Your task to perform on an android device: Open wifi settings Image 0: 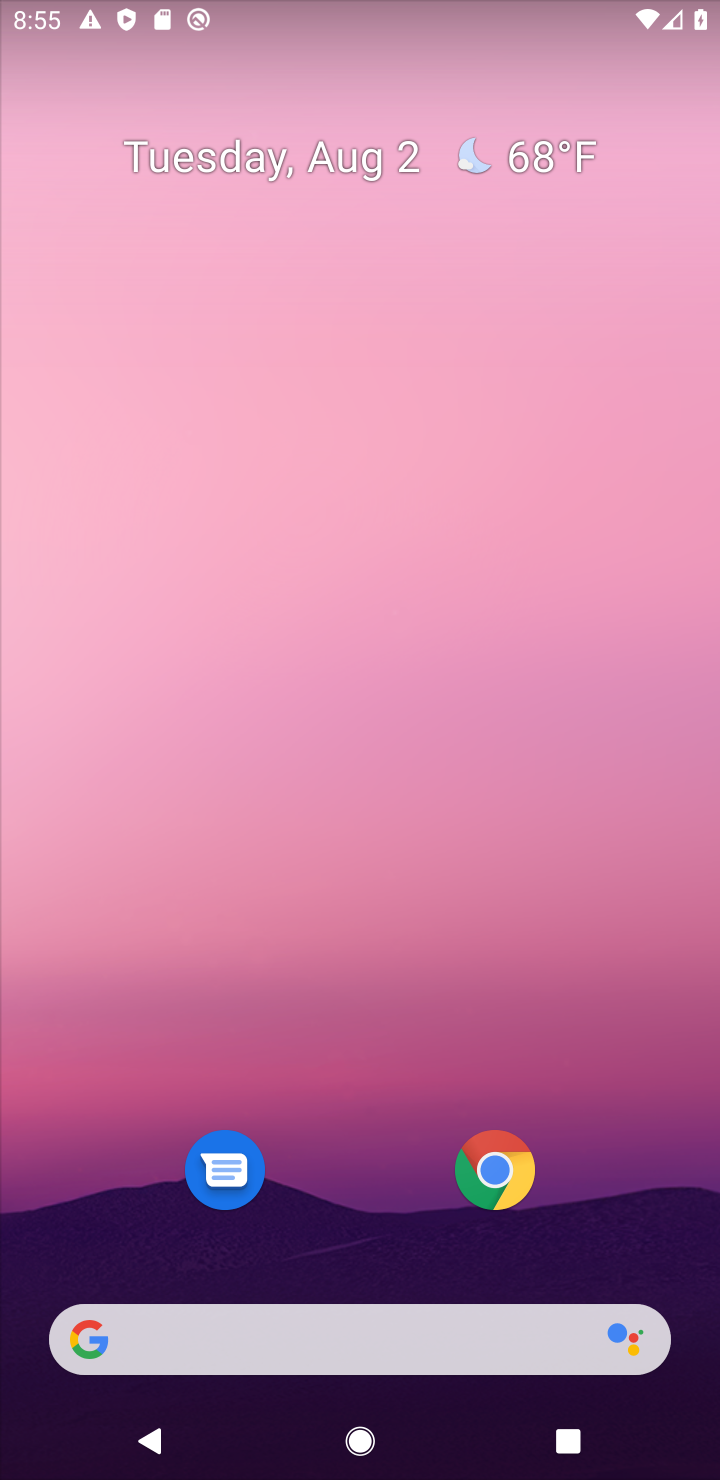
Step 0: drag from (321, 1017) to (542, 104)
Your task to perform on an android device: Open wifi settings Image 1: 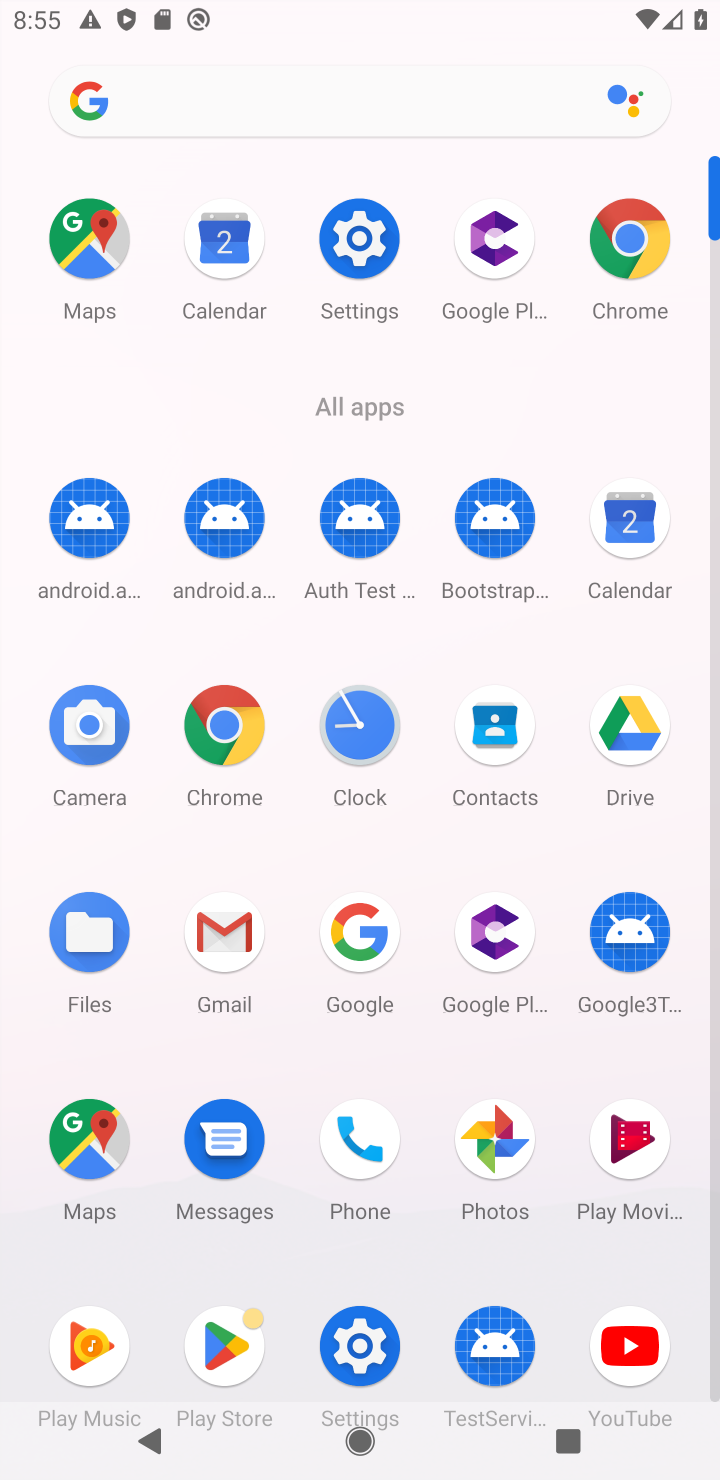
Step 1: click (357, 239)
Your task to perform on an android device: Open wifi settings Image 2: 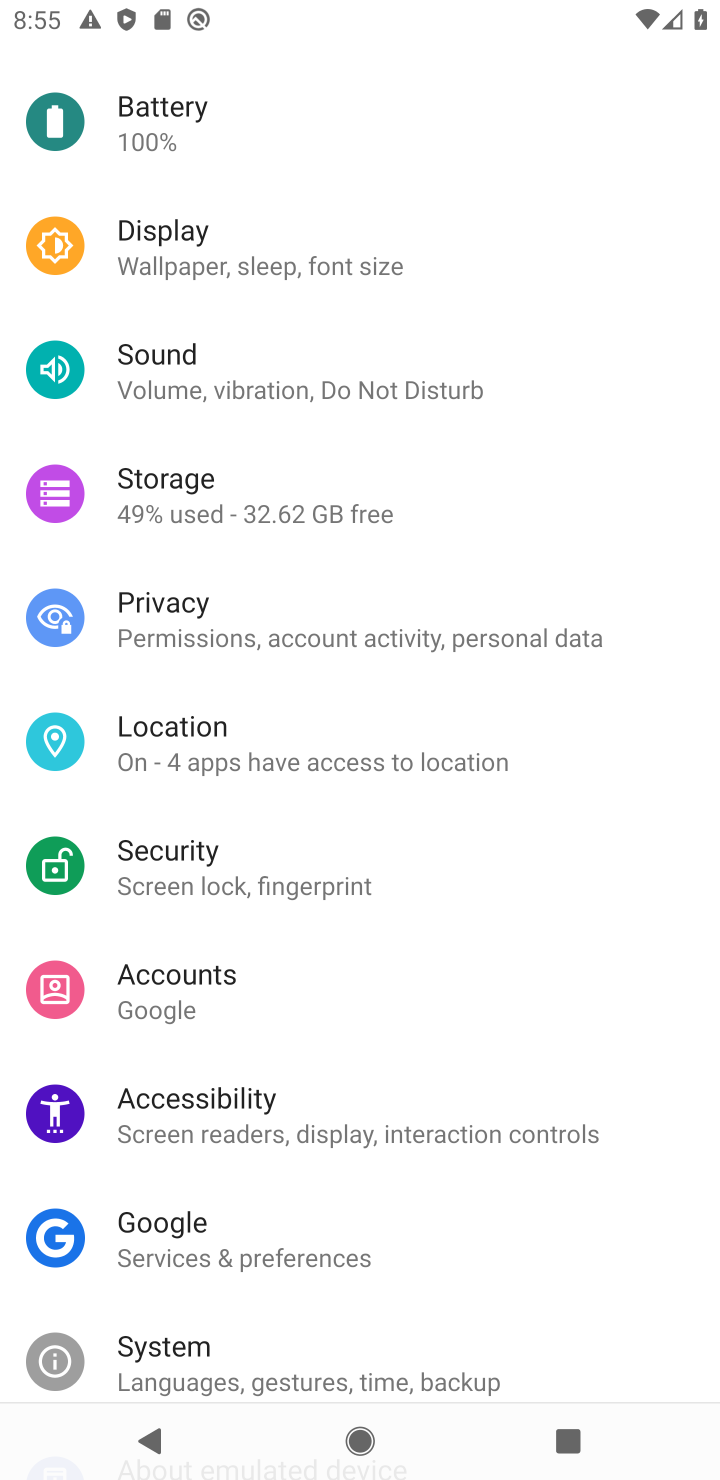
Step 2: drag from (303, 498) to (277, 1430)
Your task to perform on an android device: Open wifi settings Image 3: 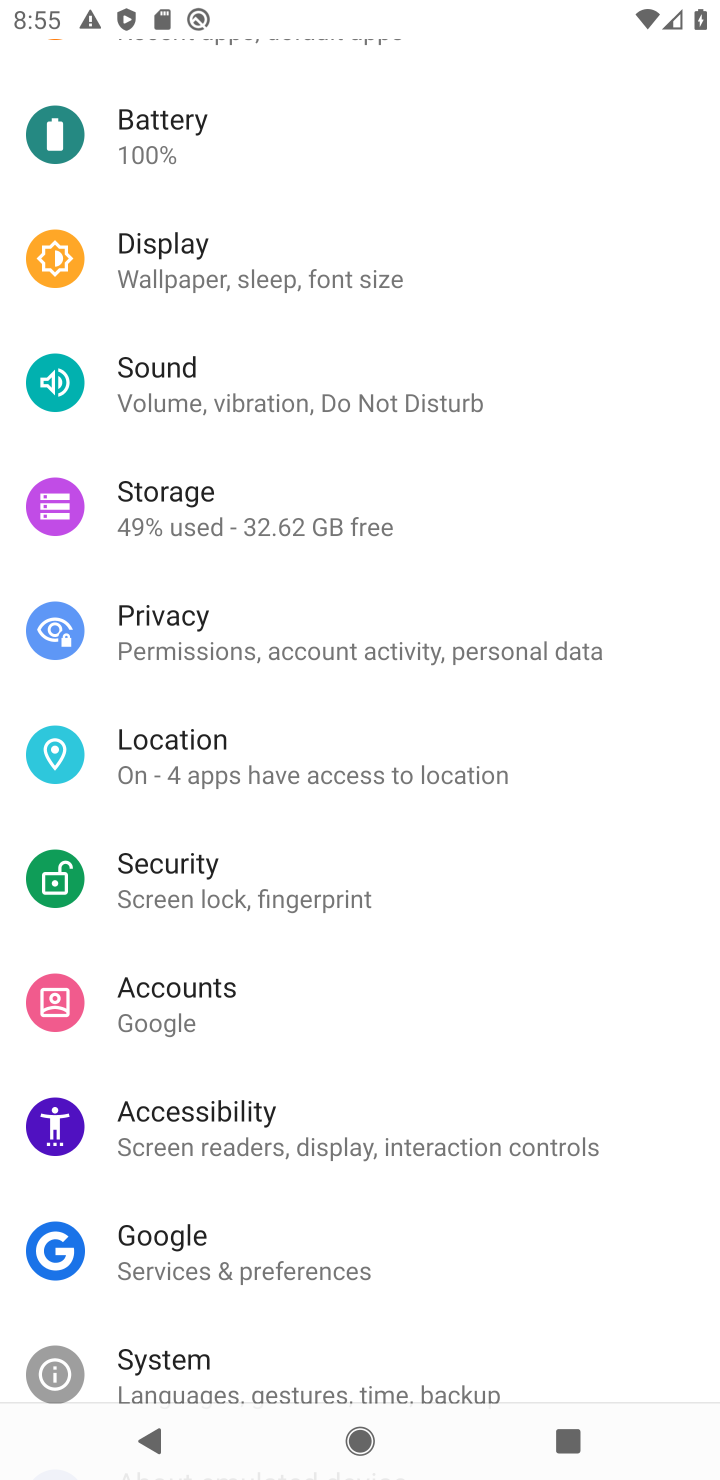
Step 3: drag from (379, 573) to (346, 678)
Your task to perform on an android device: Open wifi settings Image 4: 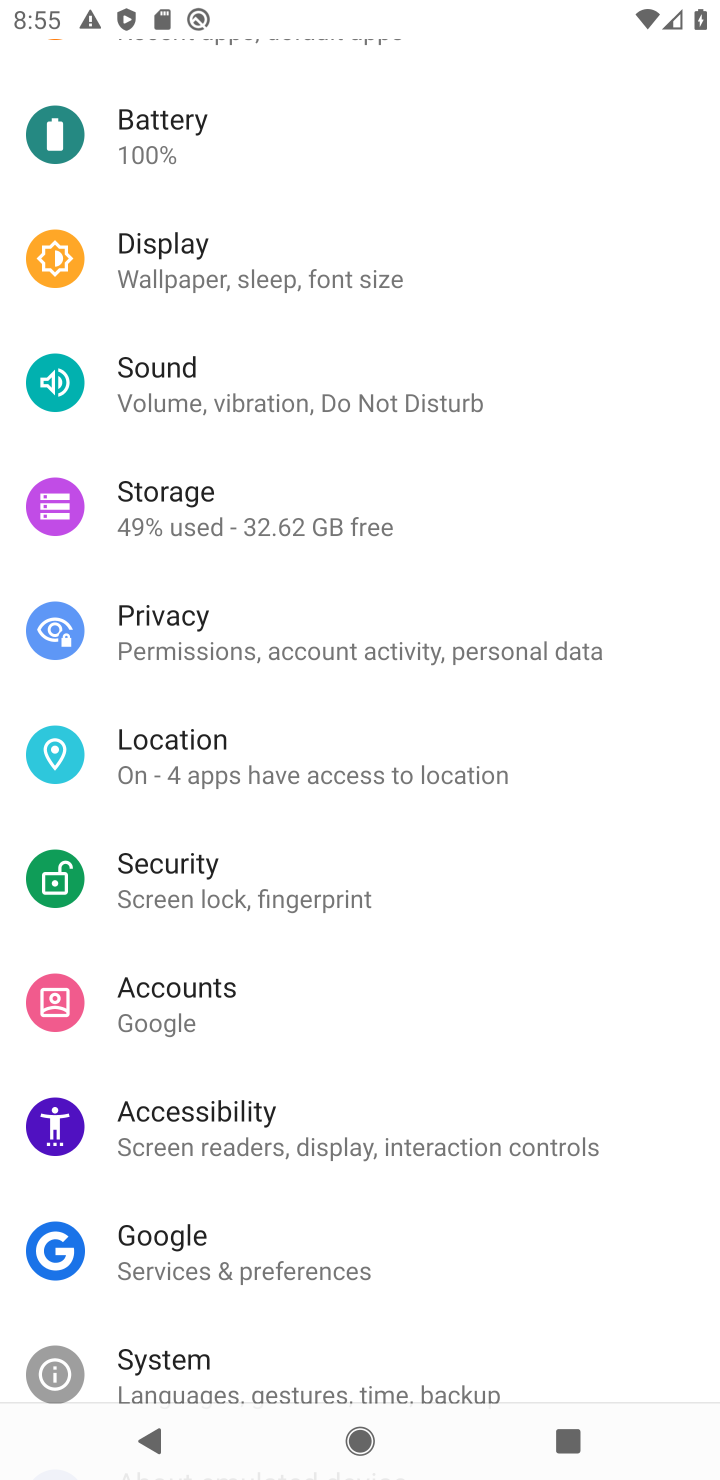
Step 4: drag from (290, 553) to (192, 1071)
Your task to perform on an android device: Open wifi settings Image 5: 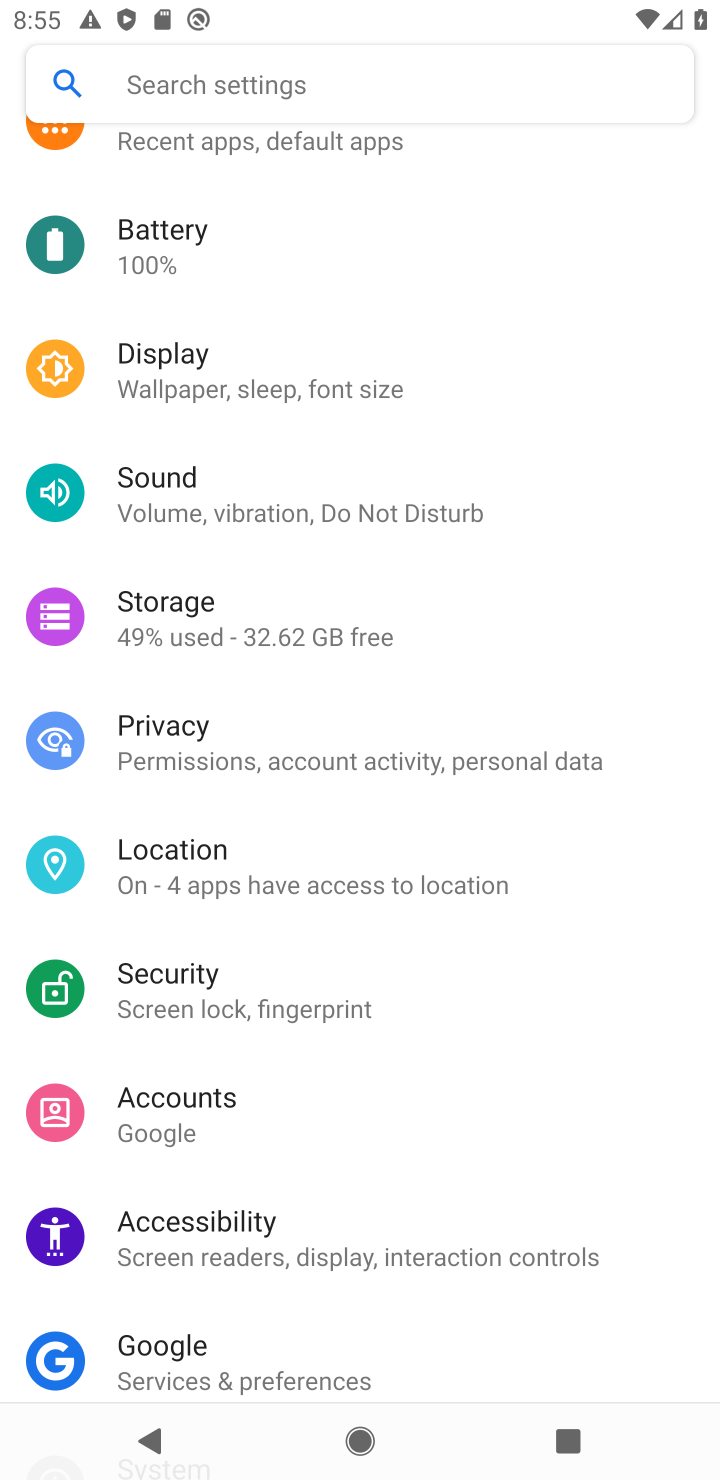
Step 5: drag from (376, 752) to (391, 1273)
Your task to perform on an android device: Open wifi settings Image 6: 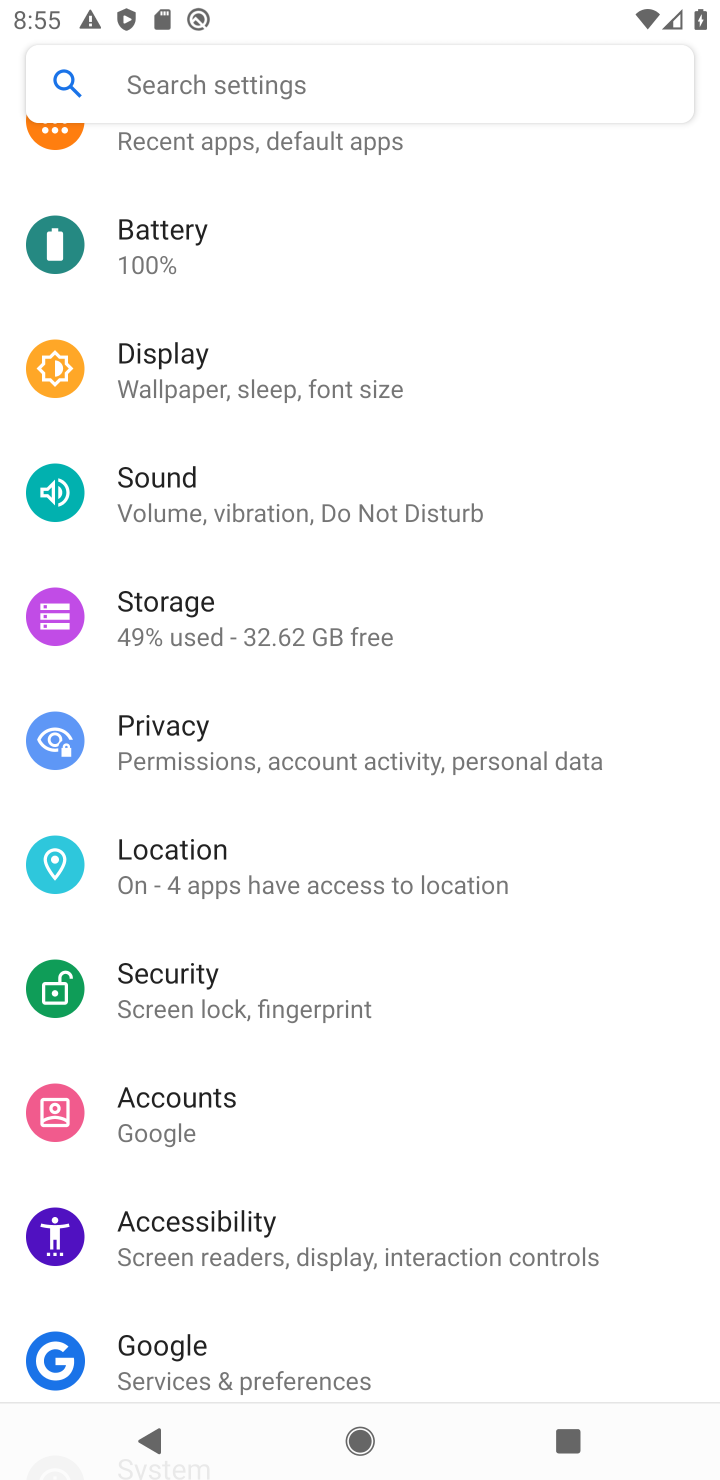
Step 6: drag from (390, 656) to (285, 1143)
Your task to perform on an android device: Open wifi settings Image 7: 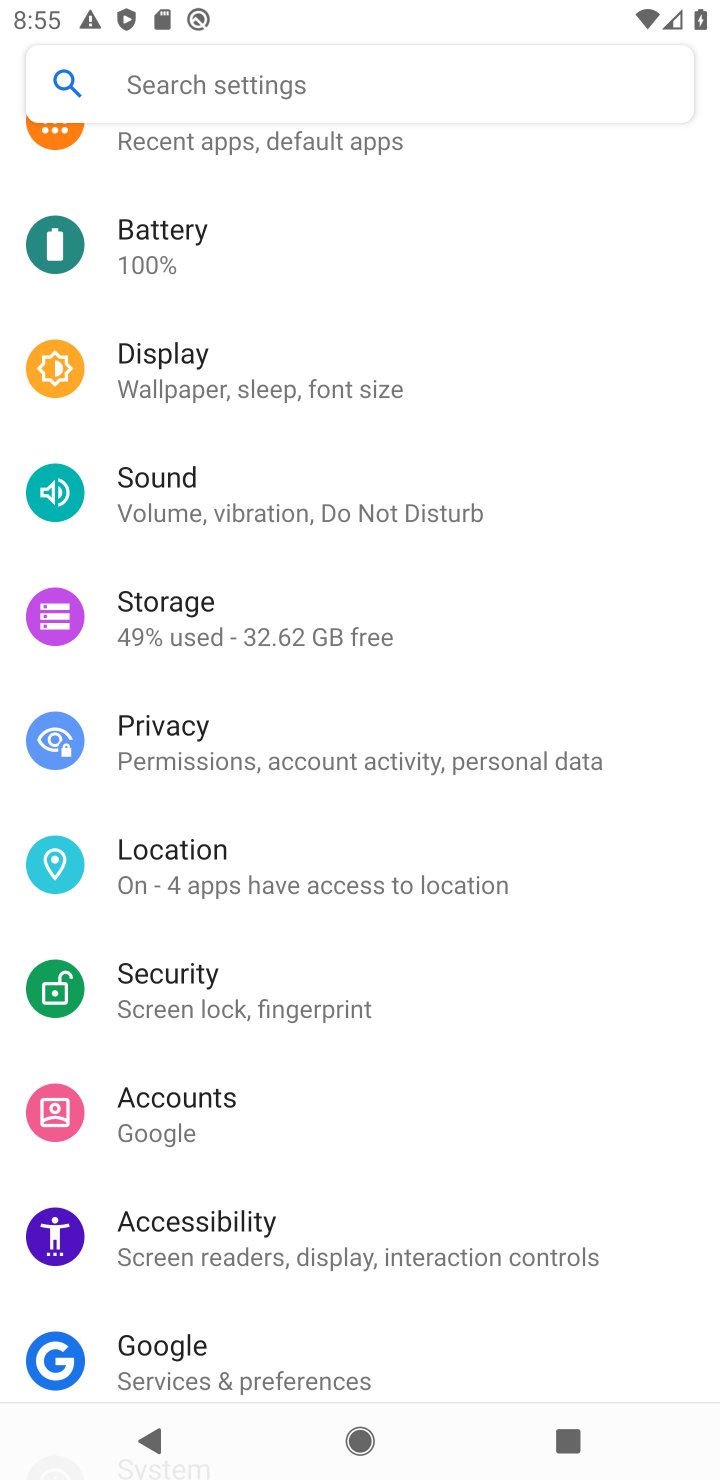
Step 7: drag from (361, 1214) to (256, 1433)
Your task to perform on an android device: Open wifi settings Image 8: 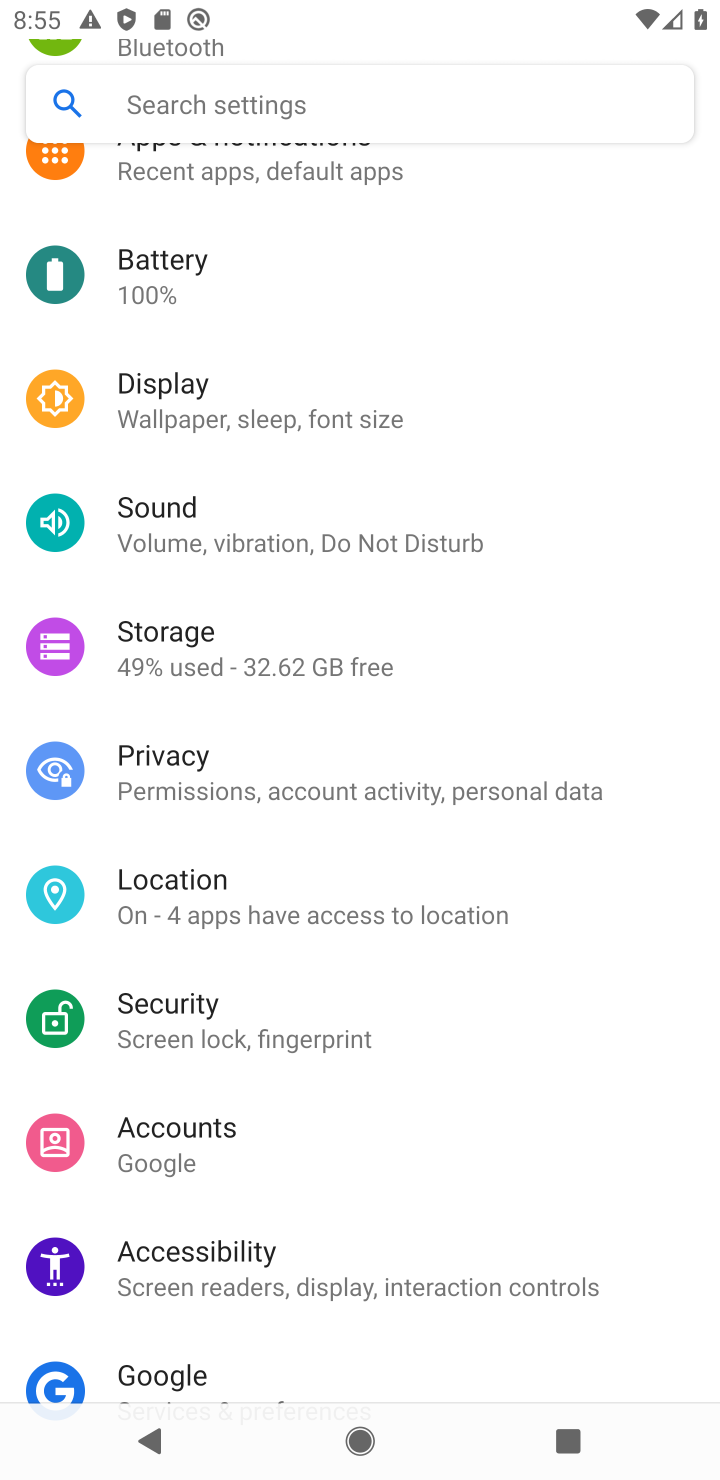
Step 8: drag from (192, 271) to (225, 1118)
Your task to perform on an android device: Open wifi settings Image 9: 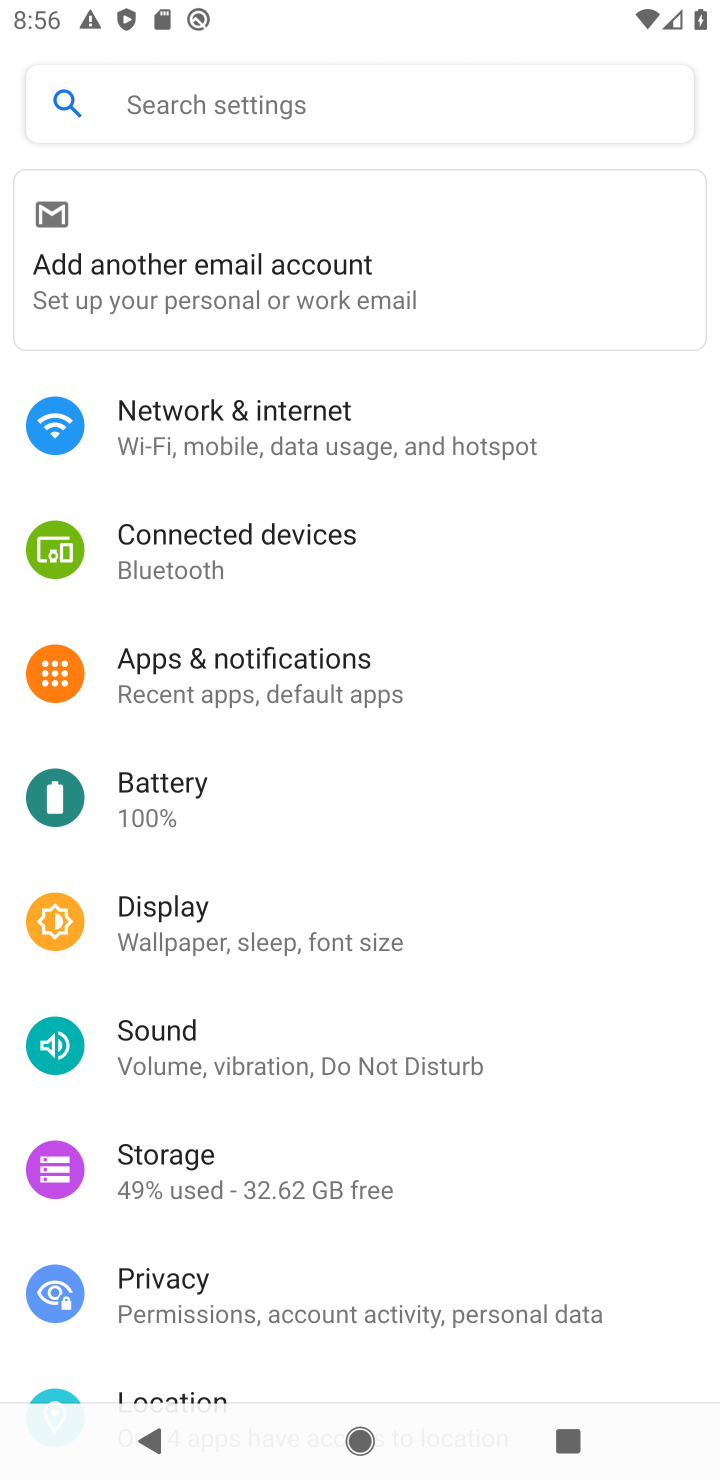
Step 9: click (298, 433)
Your task to perform on an android device: Open wifi settings Image 10: 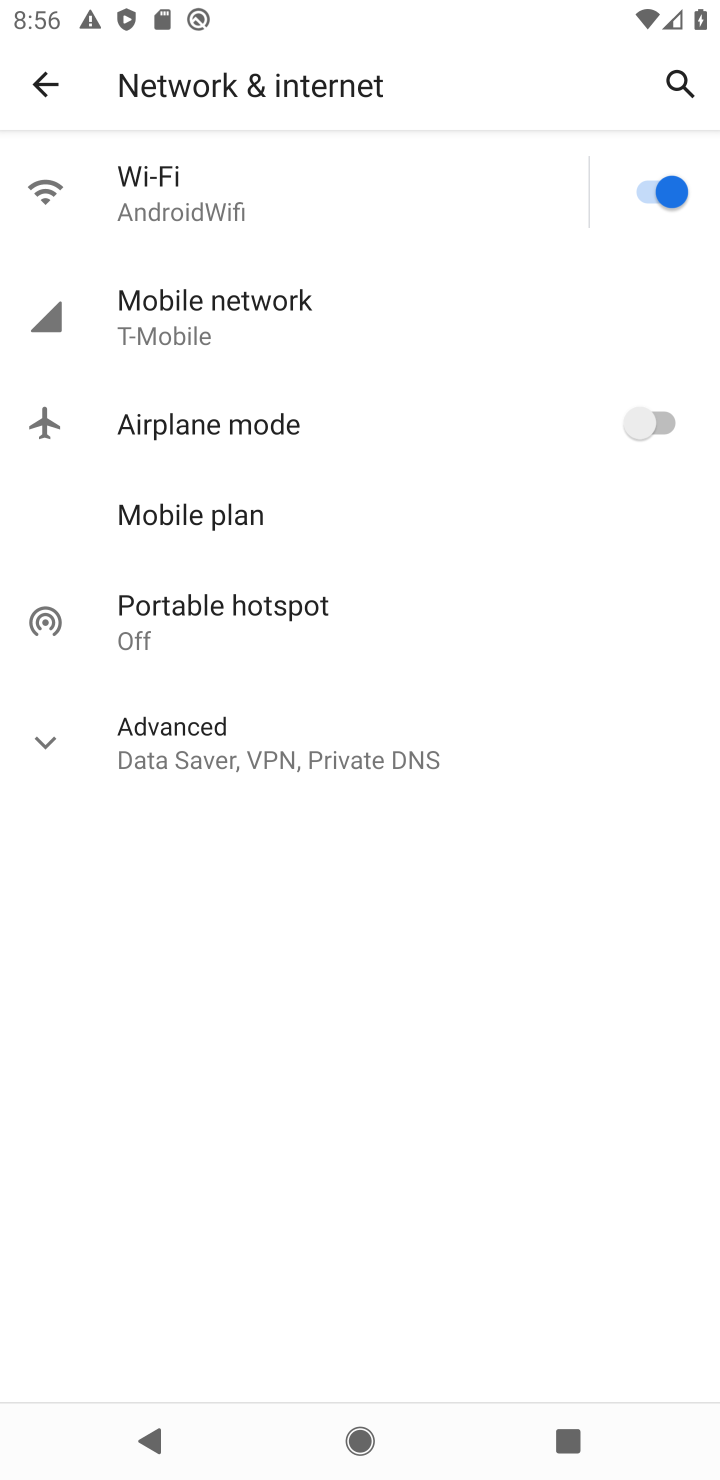
Step 10: click (219, 198)
Your task to perform on an android device: Open wifi settings Image 11: 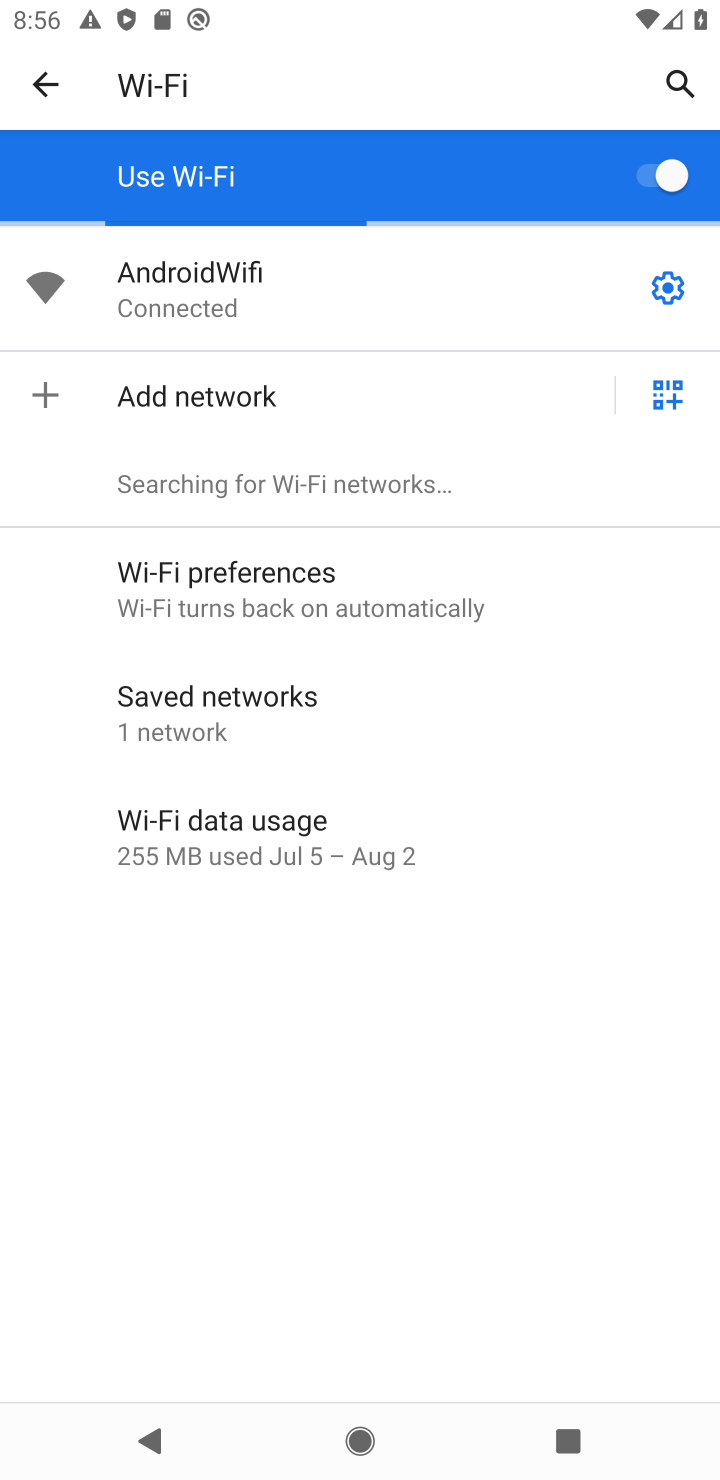
Step 11: task complete